Your task to perform on an android device: open chrome and create a bookmark for the current page Image 0: 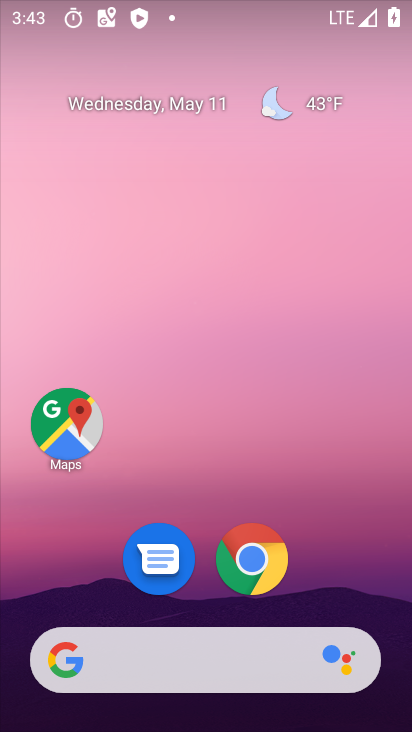
Step 0: click (259, 560)
Your task to perform on an android device: open chrome and create a bookmark for the current page Image 1: 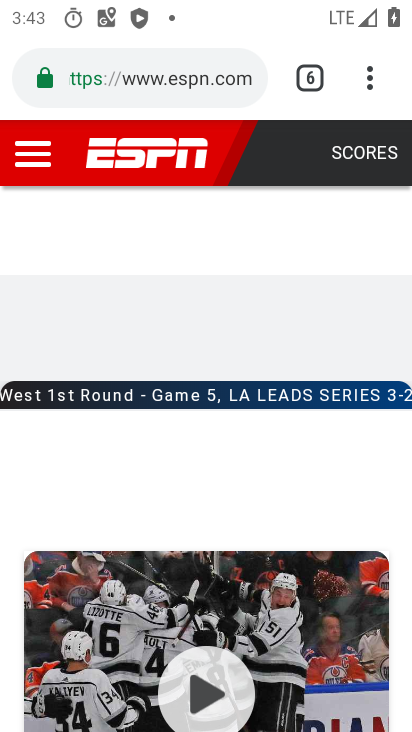
Step 1: click (361, 74)
Your task to perform on an android device: open chrome and create a bookmark for the current page Image 2: 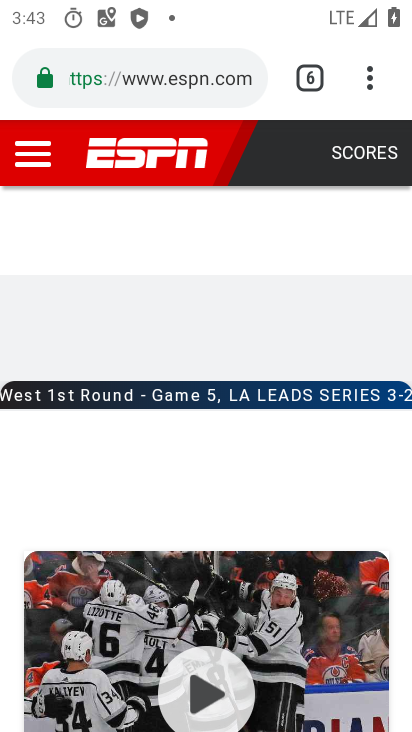
Step 2: click (365, 74)
Your task to perform on an android device: open chrome and create a bookmark for the current page Image 3: 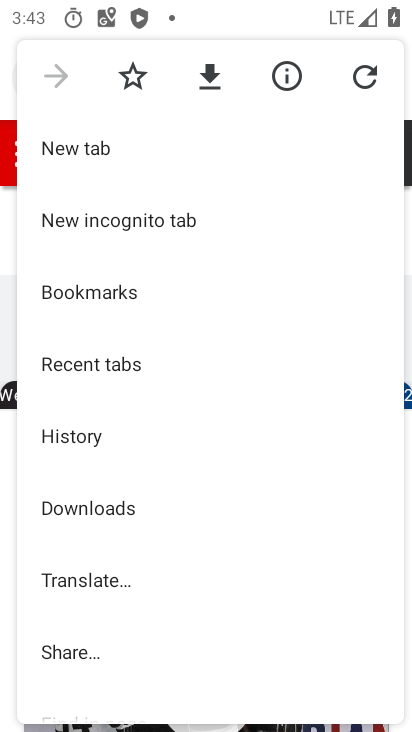
Step 3: click (122, 77)
Your task to perform on an android device: open chrome and create a bookmark for the current page Image 4: 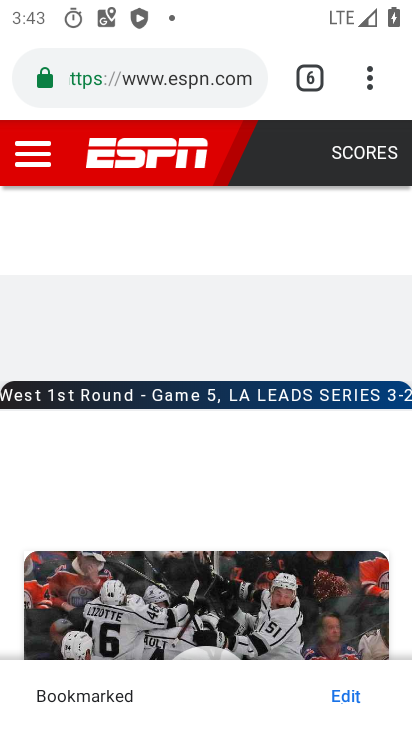
Step 4: task complete